Your task to perform on an android device: choose inbox layout in the gmail app Image 0: 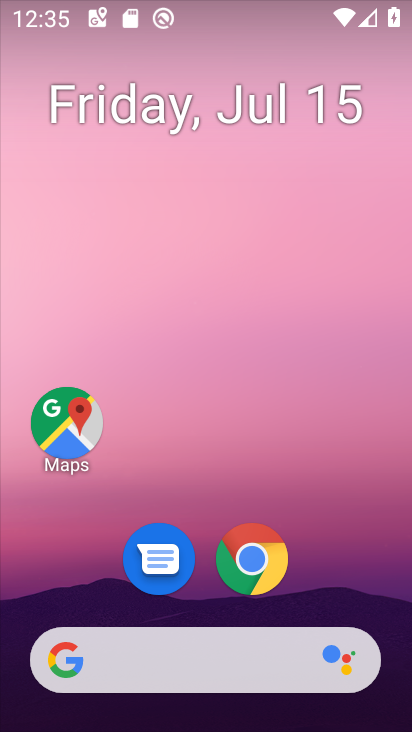
Step 0: drag from (361, 577) to (351, 132)
Your task to perform on an android device: choose inbox layout in the gmail app Image 1: 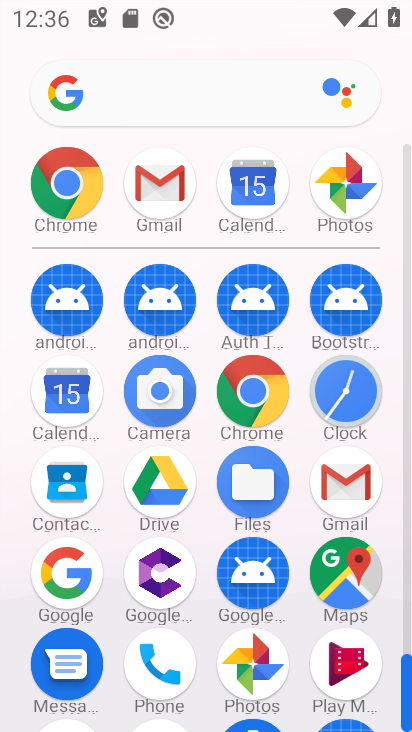
Step 1: click (365, 480)
Your task to perform on an android device: choose inbox layout in the gmail app Image 2: 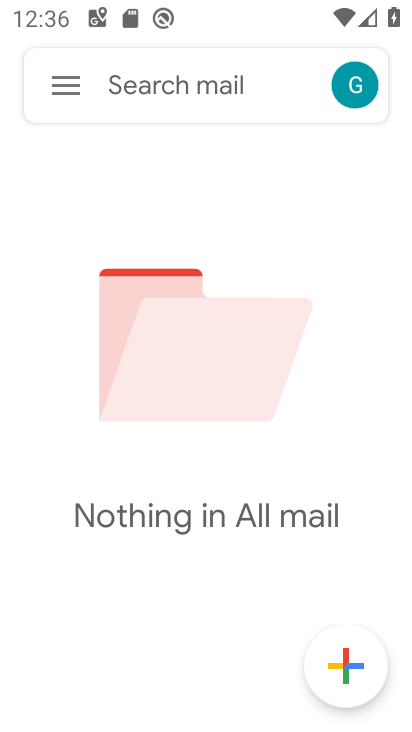
Step 2: click (65, 89)
Your task to perform on an android device: choose inbox layout in the gmail app Image 3: 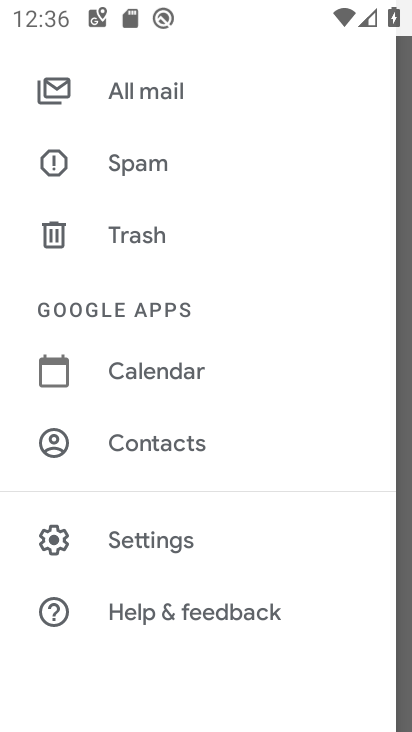
Step 3: click (208, 548)
Your task to perform on an android device: choose inbox layout in the gmail app Image 4: 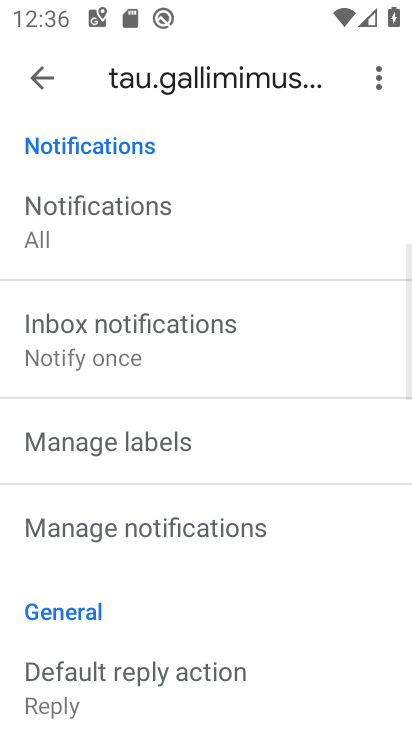
Step 4: drag from (335, 490) to (343, 418)
Your task to perform on an android device: choose inbox layout in the gmail app Image 5: 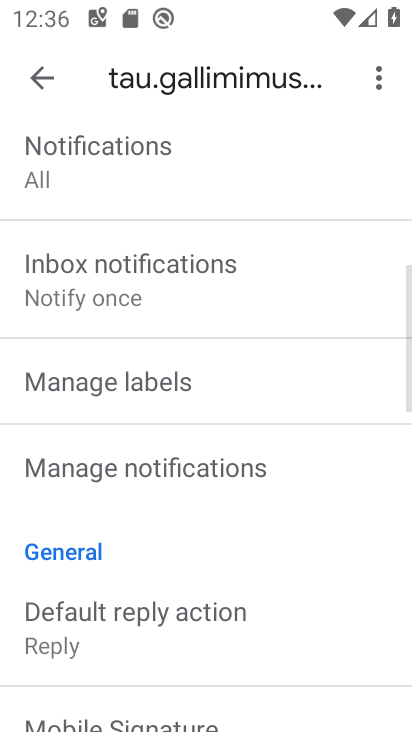
Step 5: drag from (335, 542) to (344, 467)
Your task to perform on an android device: choose inbox layout in the gmail app Image 6: 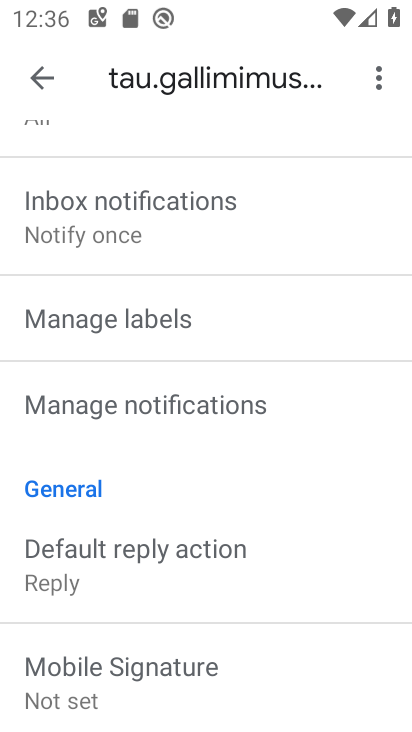
Step 6: drag from (345, 564) to (349, 409)
Your task to perform on an android device: choose inbox layout in the gmail app Image 7: 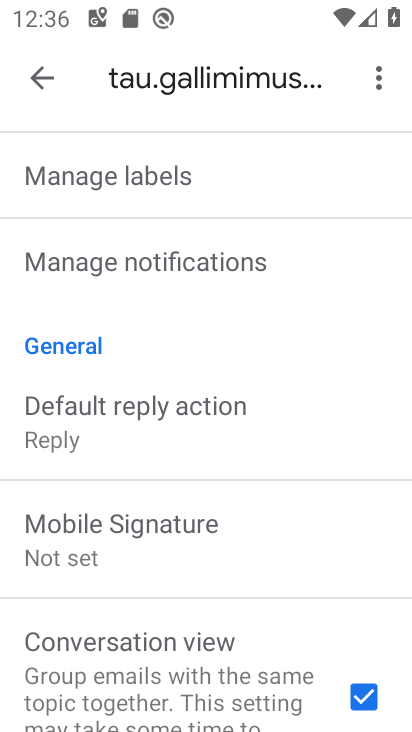
Step 7: drag from (335, 548) to (340, 458)
Your task to perform on an android device: choose inbox layout in the gmail app Image 8: 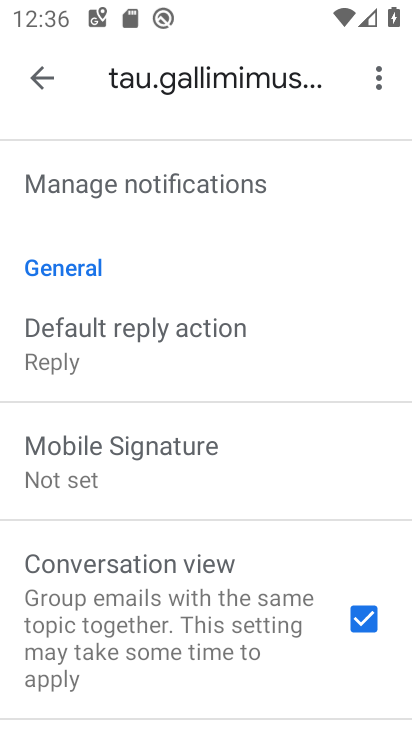
Step 8: drag from (337, 581) to (338, 455)
Your task to perform on an android device: choose inbox layout in the gmail app Image 9: 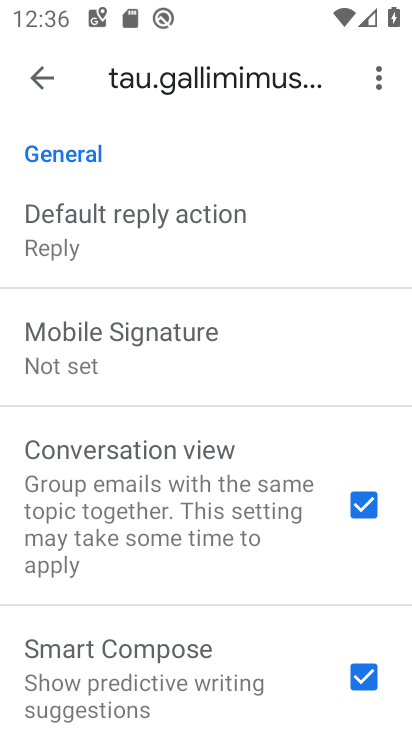
Step 9: drag from (313, 583) to (316, 461)
Your task to perform on an android device: choose inbox layout in the gmail app Image 10: 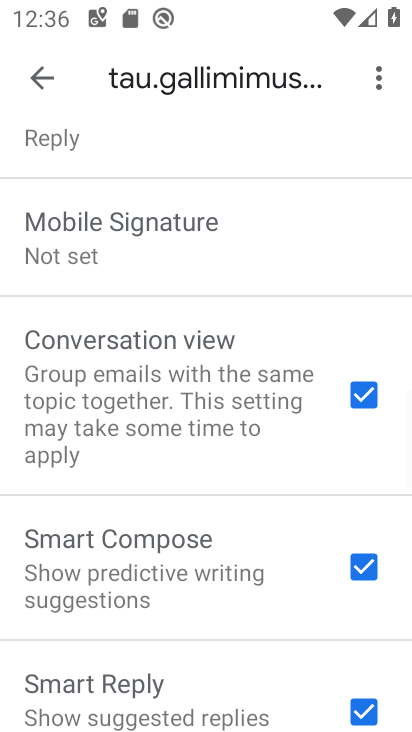
Step 10: drag from (297, 339) to (304, 453)
Your task to perform on an android device: choose inbox layout in the gmail app Image 11: 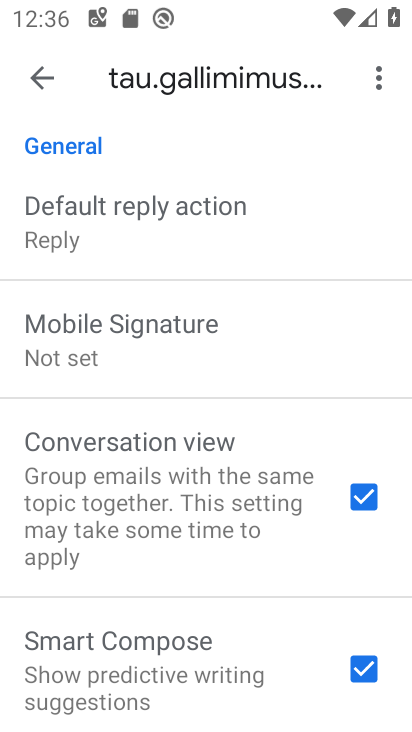
Step 11: drag from (288, 310) to (288, 462)
Your task to perform on an android device: choose inbox layout in the gmail app Image 12: 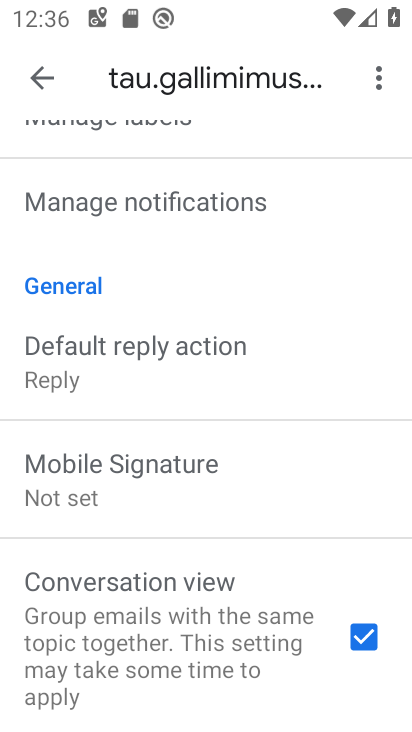
Step 12: drag from (293, 325) to (295, 418)
Your task to perform on an android device: choose inbox layout in the gmail app Image 13: 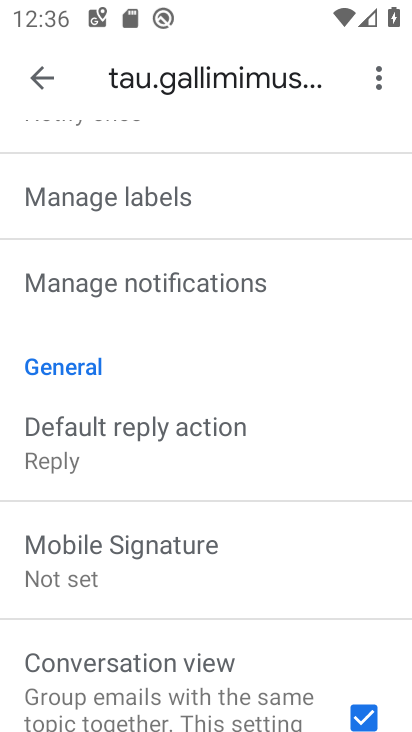
Step 13: drag from (297, 293) to (308, 410)
Your task to perform on an android device: choose inbox layout in the gmail app Image 14: 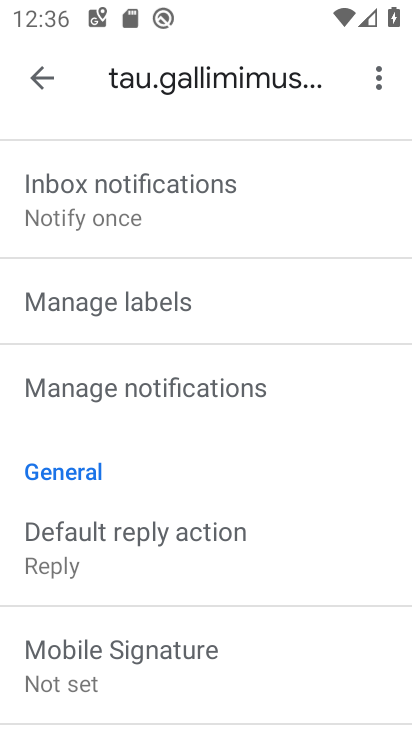
Step 14: drag from (303, 296) to (311, 402)
Your task to perform on an android device: choose inbox layout in the gmail app Image 15: 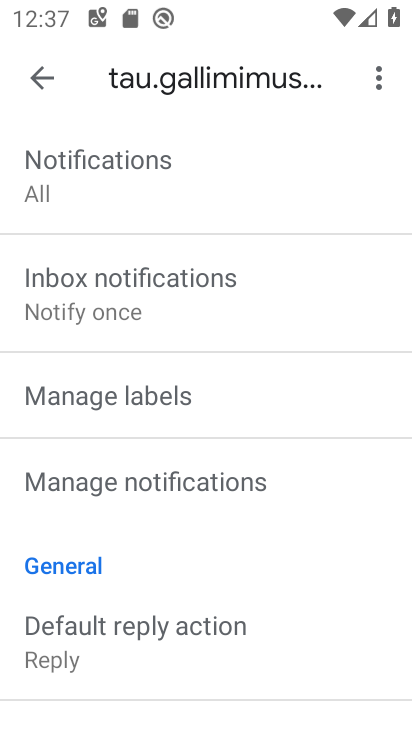
Step 15: drag from (295, 267) to (303, 425)
Your task to perform on an android device: choose inbox layout in the gmail app Image 16: 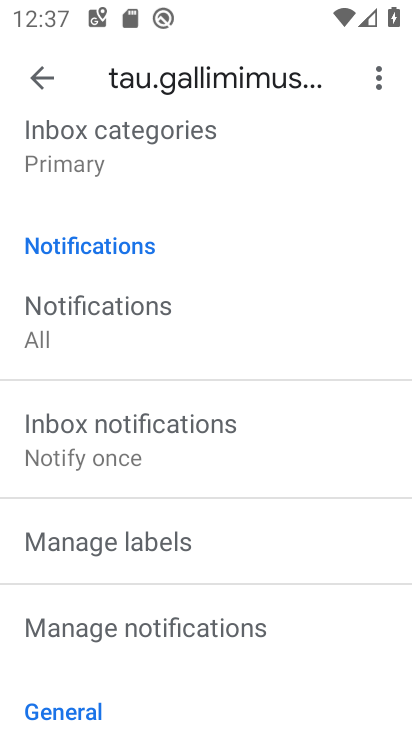
Step 16: drag from (274, 250) to (278, 399)
Your task to perform on an android device: choose inbox layout in the gmail app Image 17: 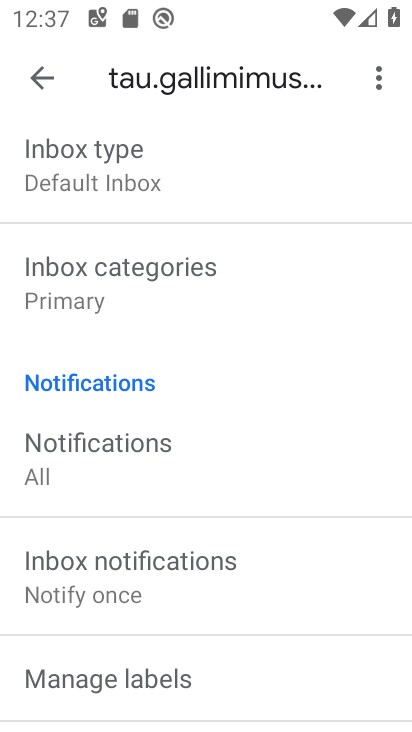
Step 17: drag from (271, 246) to (279, 384)
Your task to perform on an android device: choose inbox layout in the gmail app Image 18: 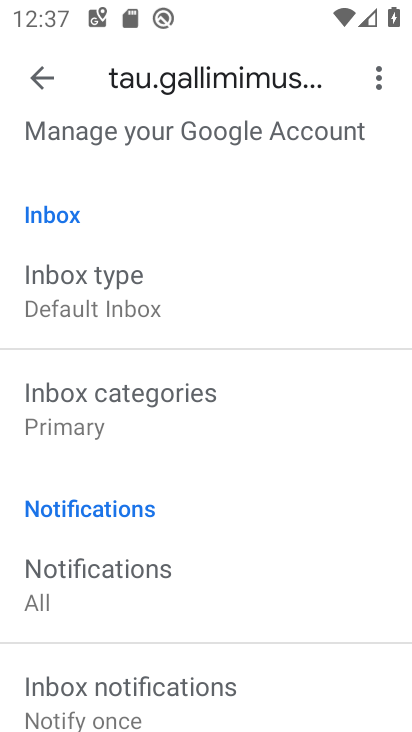
Step 18: click (165, 306)
Your task to perform on an android device: choose inbox layout in the gmail app Image 19: 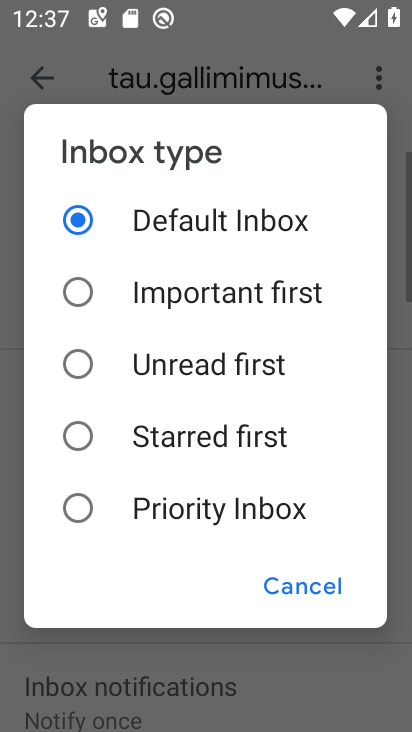
Step 19: click (165, 306)
Your task to perform on an android device: choose inbox layout in the gmail app Image 20: 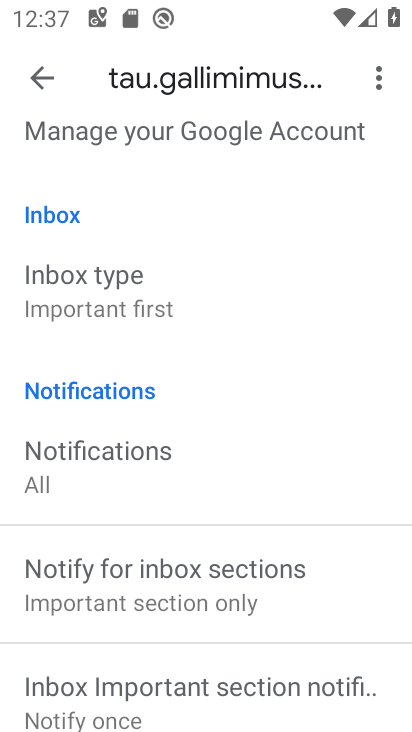
Step 20: task complete